Your task to perform on an android device: add a contact in the contacts app Image 0: 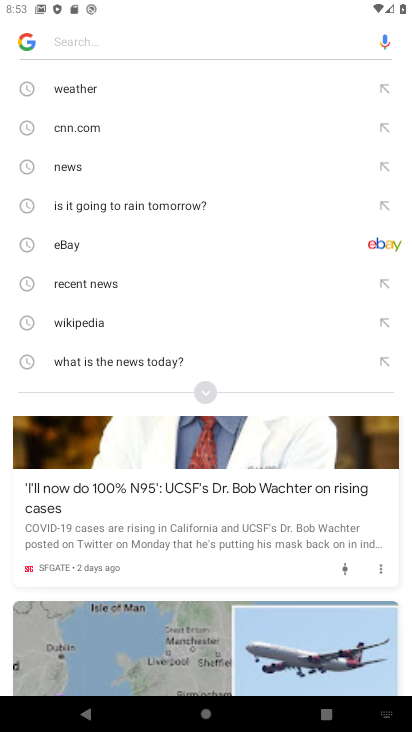
Step 0: press back button
Your task to perform on an android device: add a contact in the contacts app Image 1: 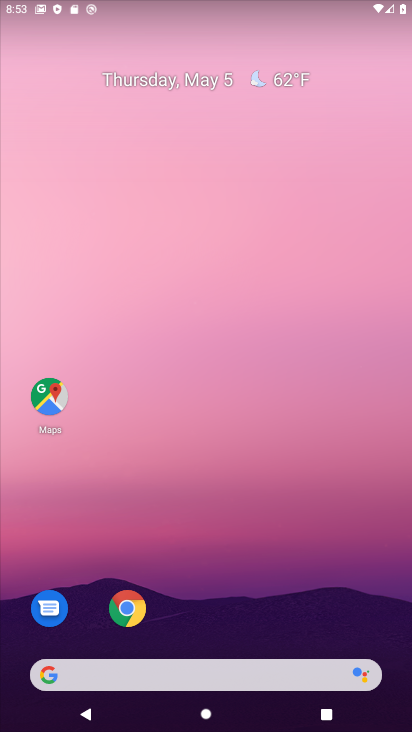
Step 1: drag from (306, 588) to (193, 15)
Your task to perform on an android device: add a contact in the contacts app Image 2: 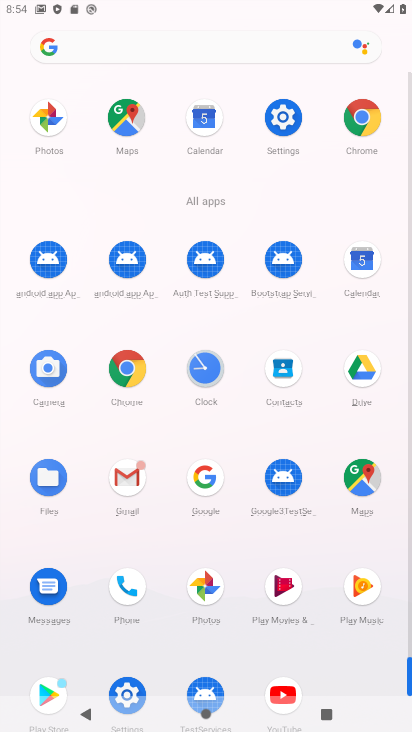
Step 2: click (279, 367)
Your task to perform on an android device: add a contact in the contacts app Image 3: 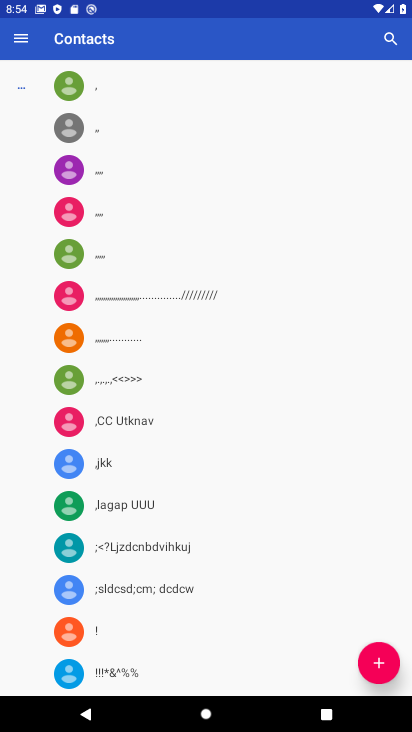
Step 3: click (374, 666)
Your task to perform on an android device: add a contact in the contacts app Image 4: 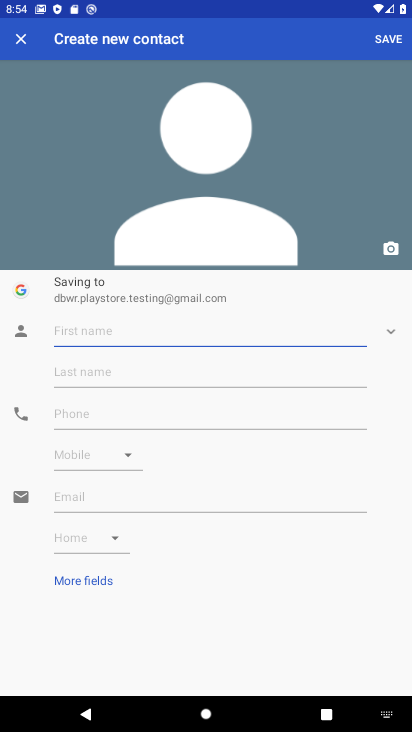
Step 4: click (99, 325)
Your task to perform on an android device: add a contact in the contacts app Image 5: 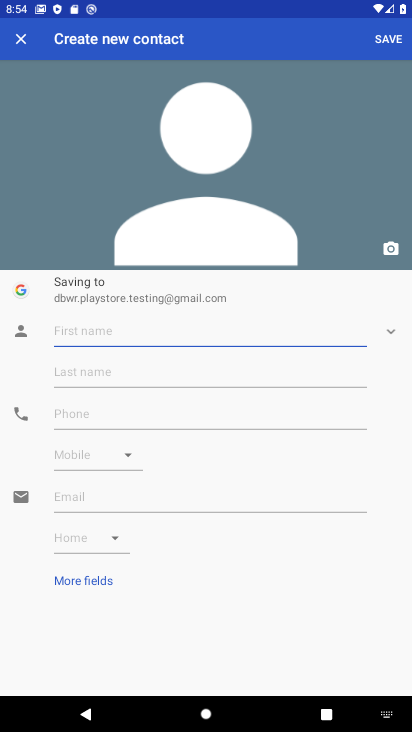
Step 5: type "sdfgg"
Your task to perform on an android device: add a contact in the contacts app Image 6: 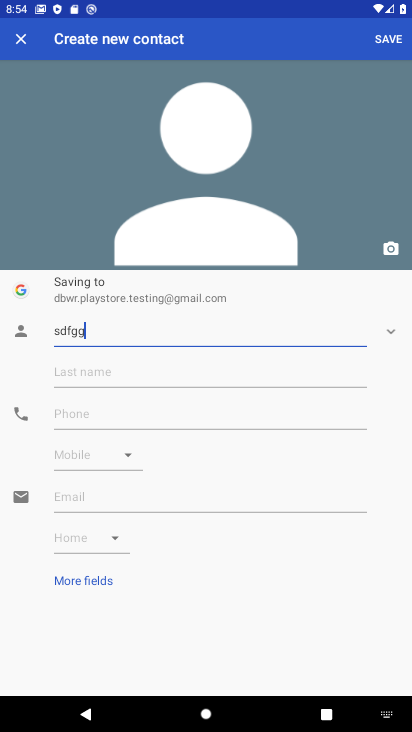
Step 6: type ""
Your task to perform on an android device: add a contact in the contacts app Image 7: 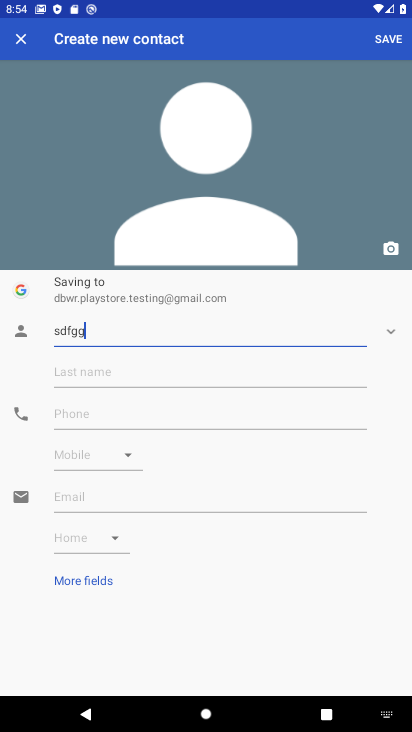
Step 7: click (85, 416)
Your task to perform on an android device: add a contact in the contacts app Image 8: 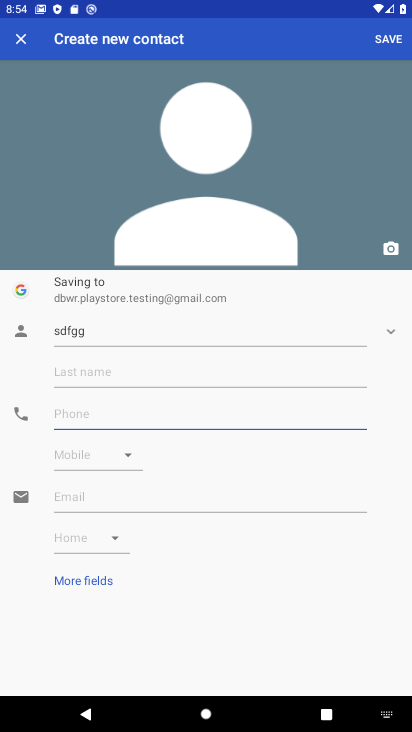
Step 8: type "9876545344"
Your task to perform on an android device: add a contact in the contacts app Image 9: 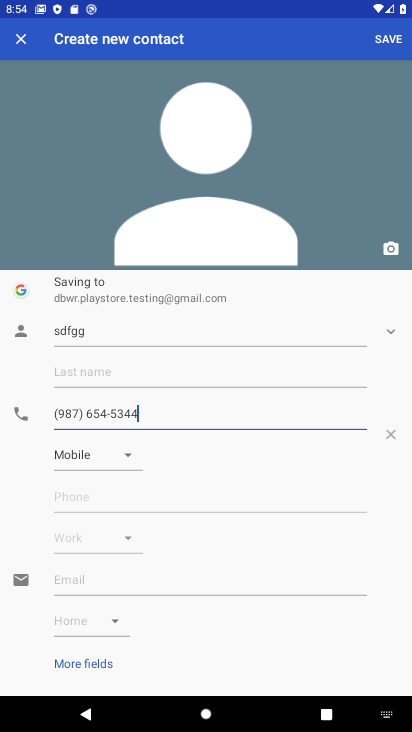
Step 9: type ""
Your task to perform on an android device: add a contact in the contacts app Image 10: 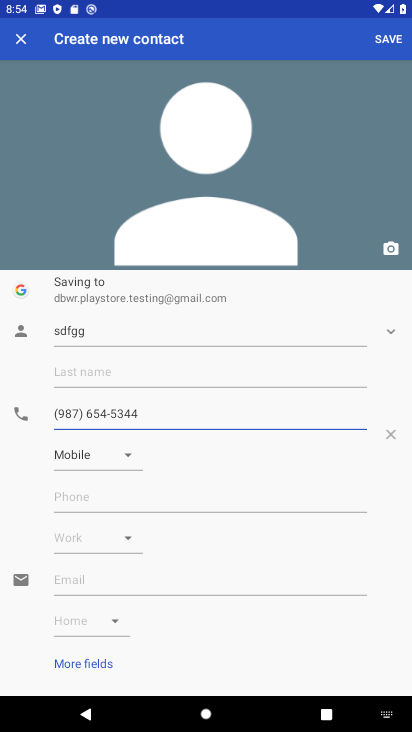
Step 10: click (377, 38)
Your task to perform on an android device: add a contact in the contacts app Image 11: 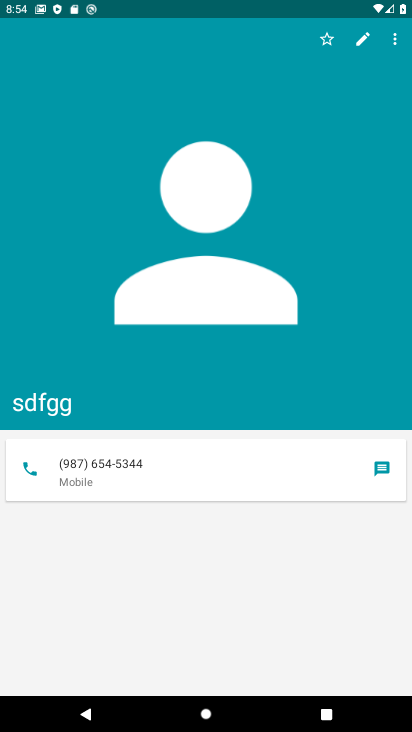
Step 11: task complete